Your task to perform on an android device: visit the assistant section in the google photos Image 0: 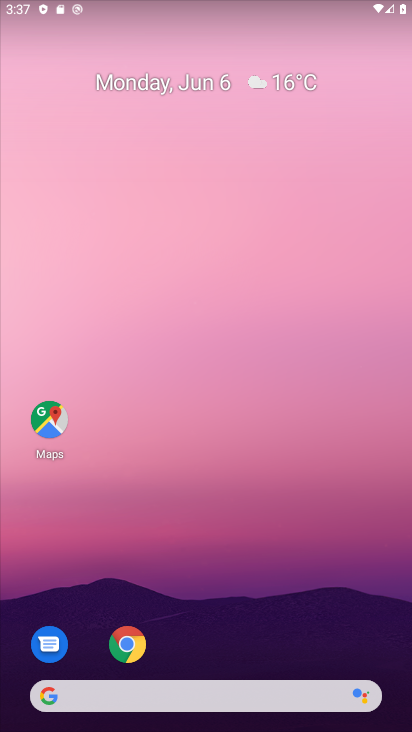
Step 0: drag from (154, 728) to (139, 22)
Your task to perform on an android device: visit the assistant section in the google photos Image 1: 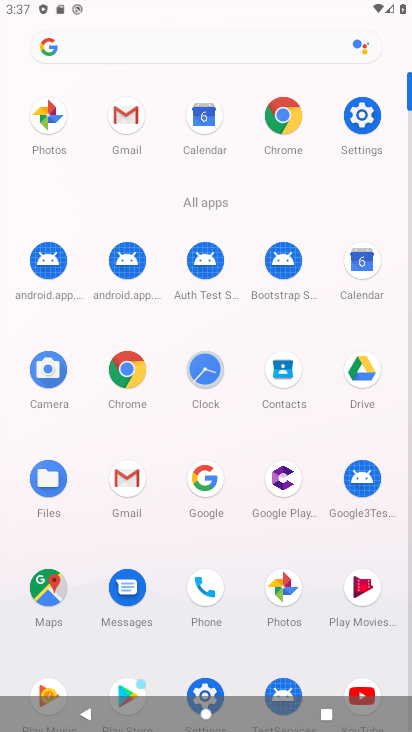
Step 1: click (283, 592)
Your task to perform on an android device: visit the assistant section in the google photos Image 2: 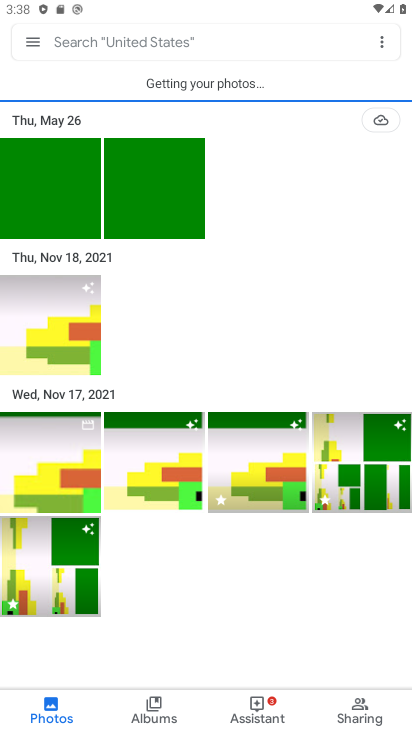
Step 2: click (253, 723)
Your task to perform on an android device: visit the assistant section in the google photos Image 3: 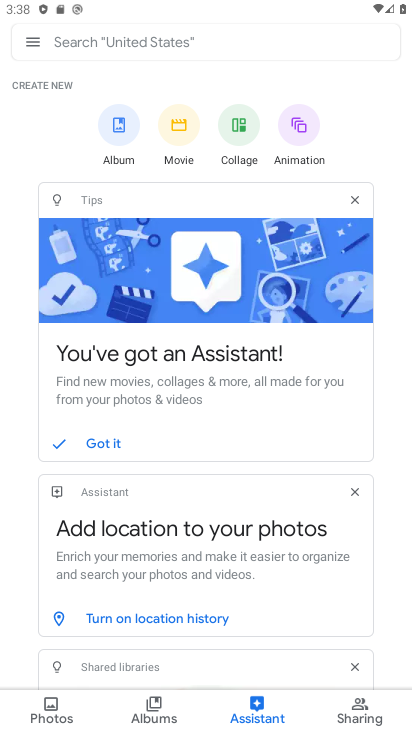
Step 3: task complete